Your task to perform on an android device: Search for usb-c to usb-a on newegg, select the first entry, add it to the cart, then select checkout. Image 0: 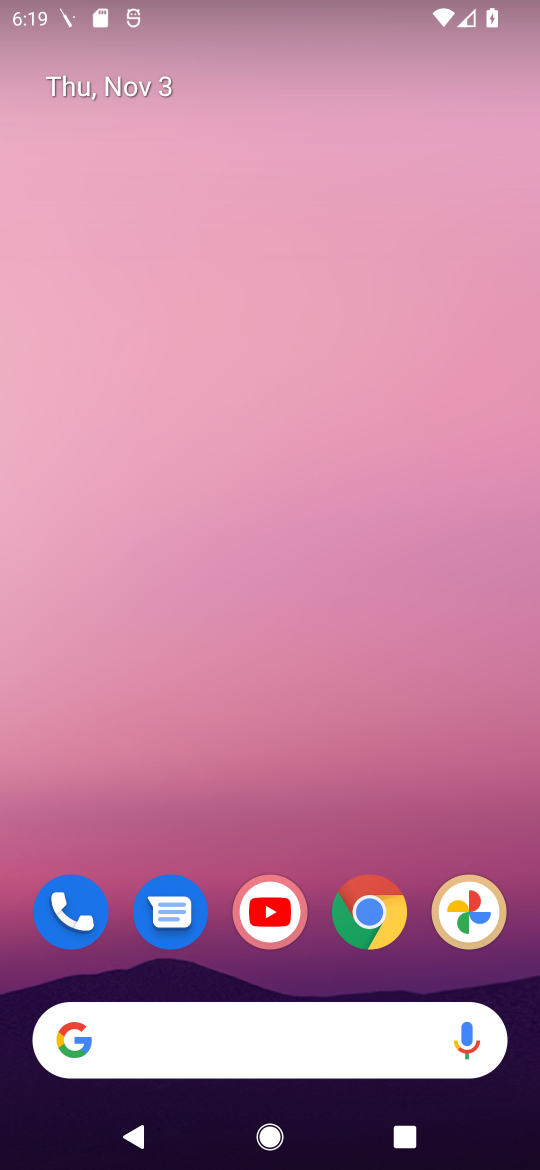
Step 0: click (362, 914)
Your task to perform on an android device: Search for usb-c to usb-a on newegg, select the first entry, add it to the cart, then select checkout. Image 1: 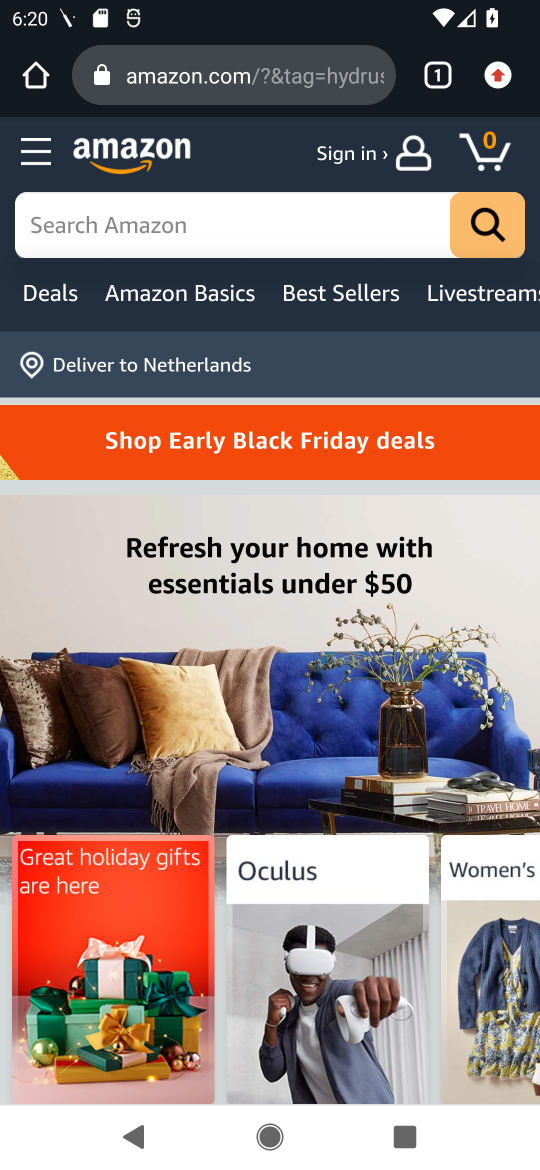
Step 1: type "n"
Your task to perform on an android device: Search for usb-c to usb-a on newegg, select the first entry, add it to the cart, then select checkout. Image 2: 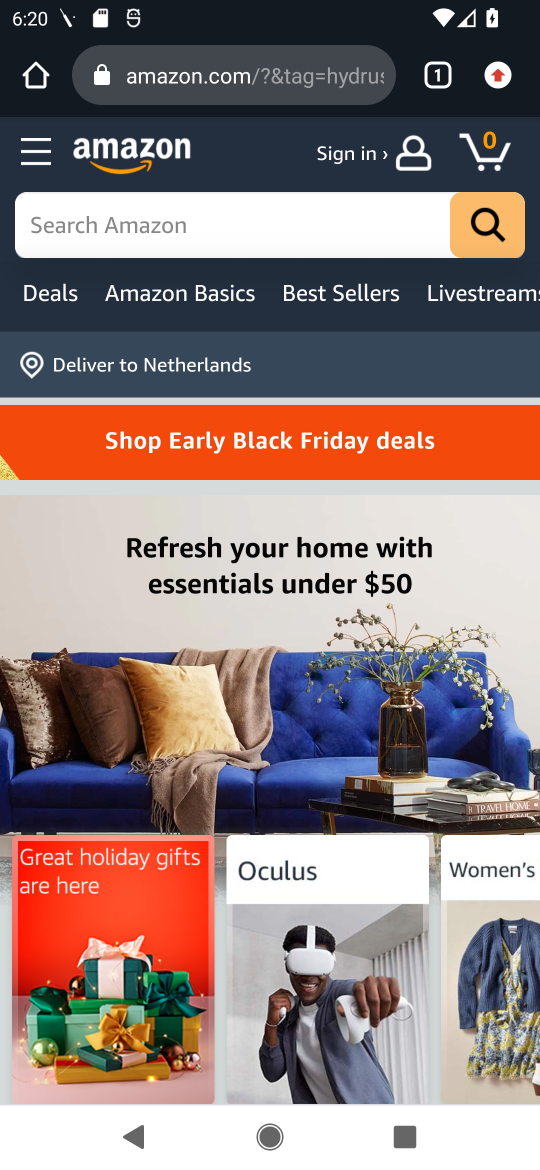
Step 2: click (248, 50)
Your task to perform on an android device: Search for usb-c to usb-a on newegg, select the first entry, add it to the cart, then select checkout. Image 3: 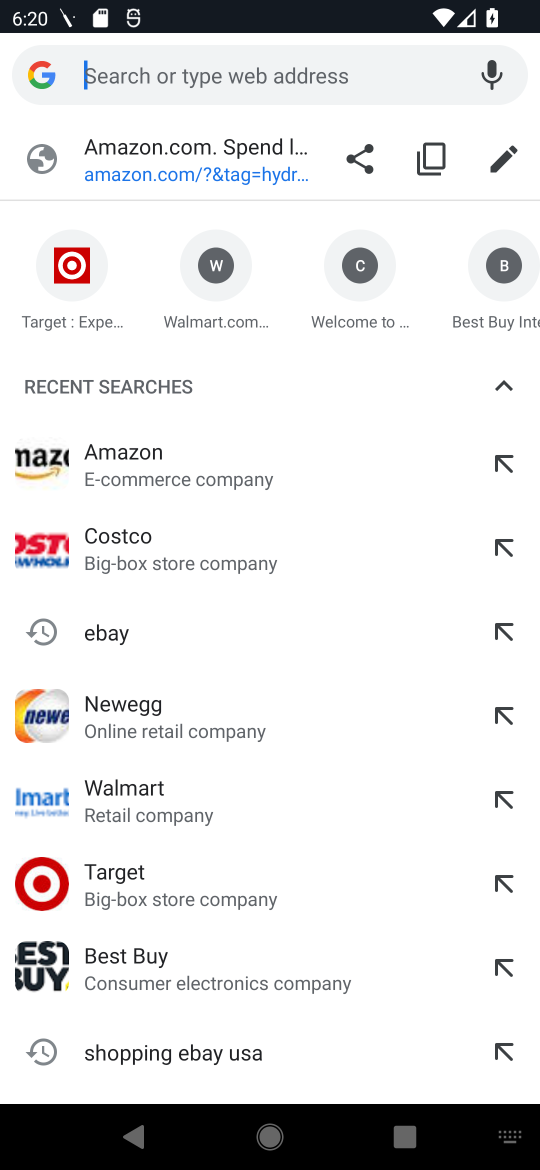
Step 3: click (132, 725)
Your task to perform on an android device: Search for usb-c to usb-a on newegg, select the first entry, add it to the cart, then select checkout. Image 4: 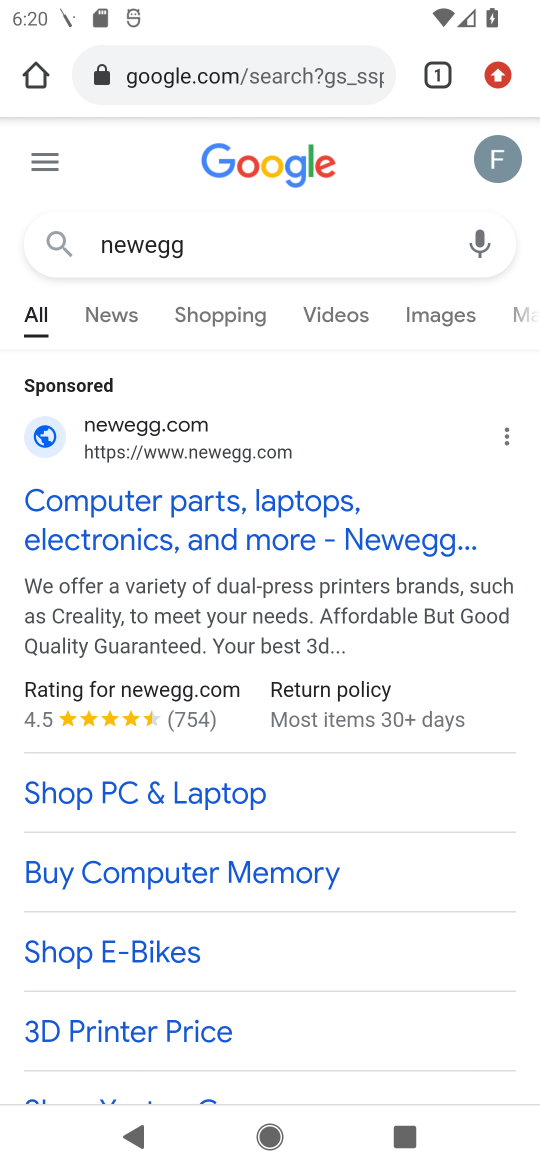
Step 4: click (124, 493)
Your task to perform on an android device: Search for usb-c to usb-a on newegg, select the first entry, add it to the cart, then select checkout. Image 5: 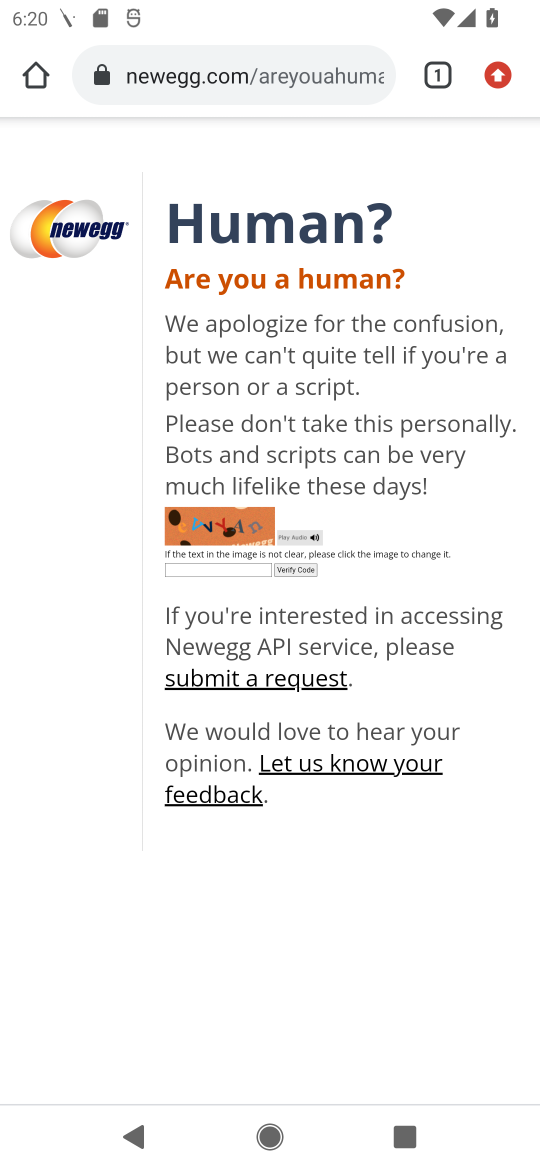
Step 5: click (190, 572)
Your task to perform on an android device: Search for usb-c to usb-a on newegg, select the first entry, add it to the cart, then select checkout. Image 6: 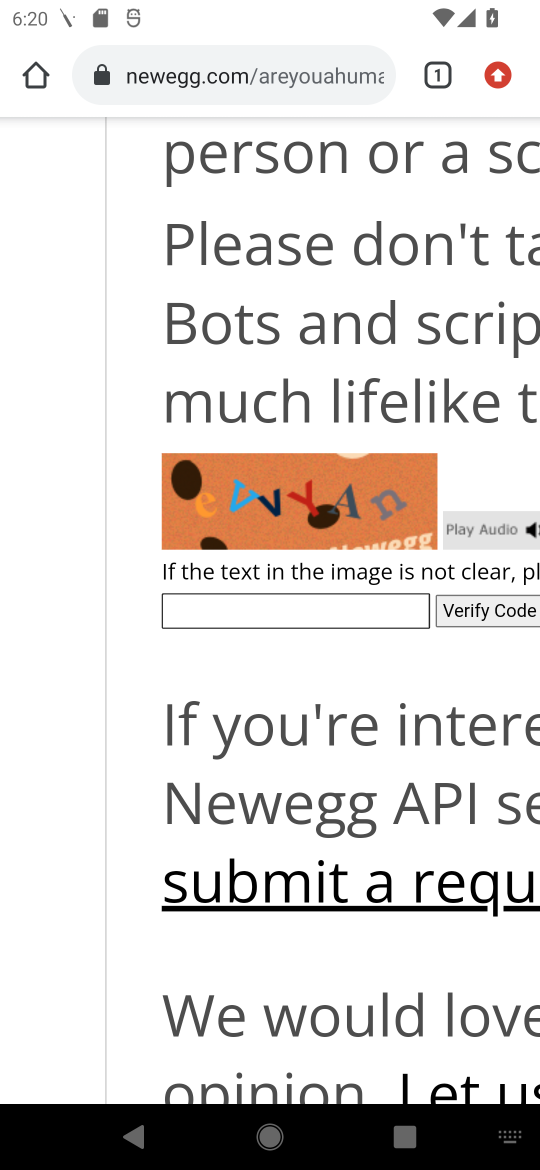
Step 6: type "eVVYAn"
Your task to perform on an android device: Search for usb-c to usb-a on newegg, select the first entry, add it to the cart, then select checkout. Image 7: 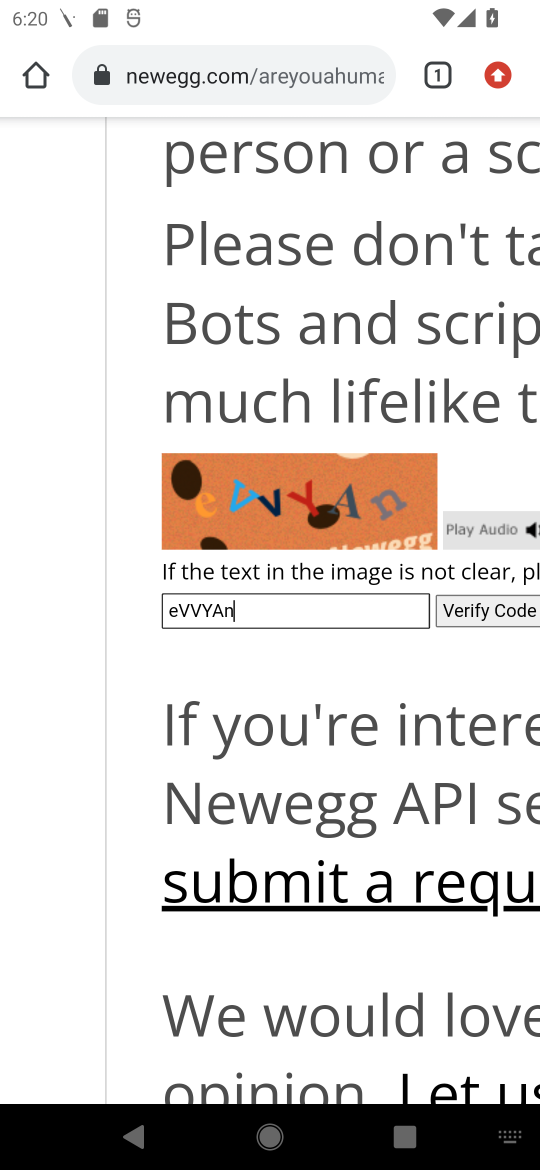
Step 7: click (472, 617)
Your task to perform on an android device: Search for usb-c to usb-a on newegg, select the first entry, add it to the cart, then select checkout. Image 8: 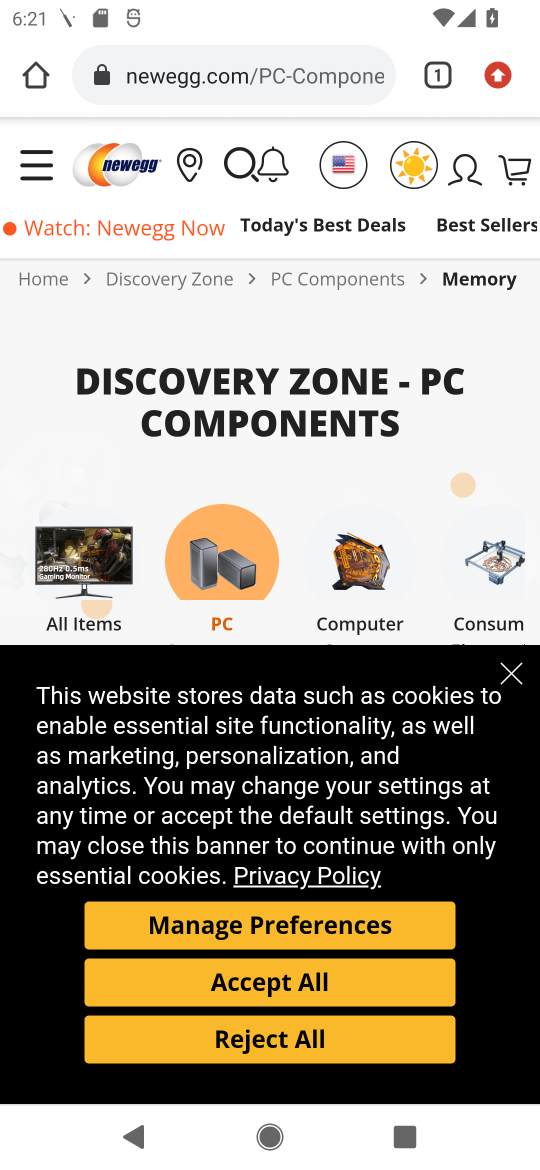
Step 8: click (290, 988)
Your task to perform on an android device: Search for usb-c to usb-a on newegg, select the first entry, add it to the cart, then select checkout. Image 9: 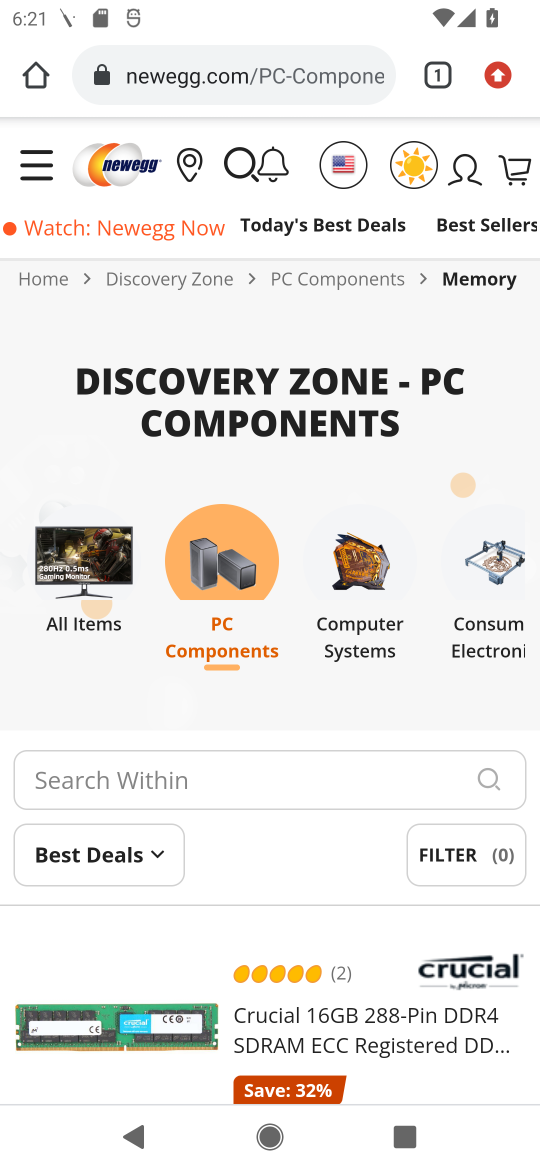
Step 9: click (233, 163)
Your task to perform on an android device: Search for usb-c to usb-a on newegg, select the first entry, add it to the cart, then select checkout. Image 10: 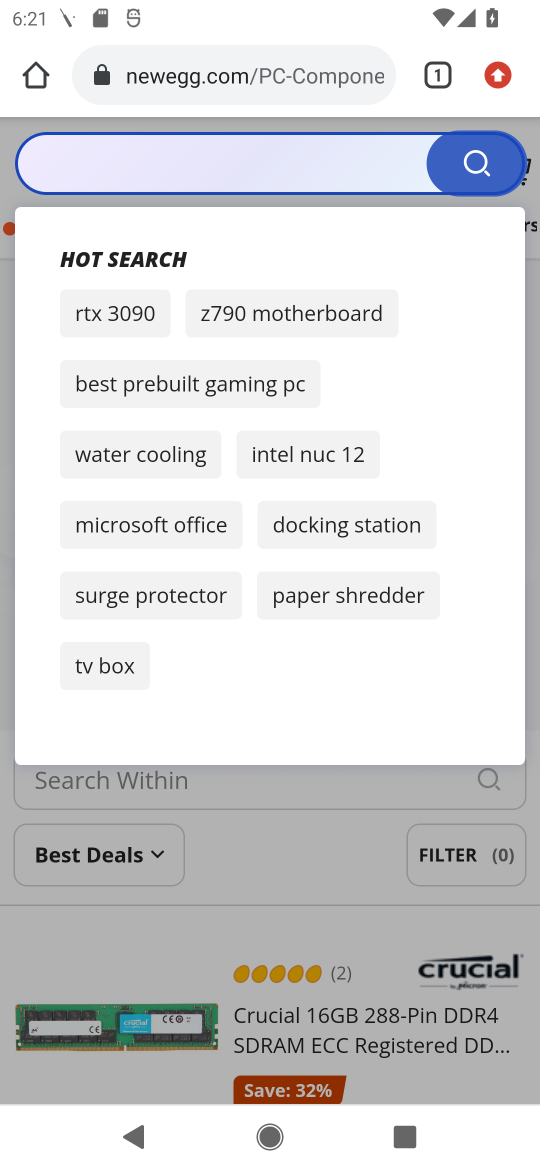
Step 10: click (207, 156)
Your task to perform on an android device: Search for usb-c to usb-a on newegg, select the first entry, add it to the cart, then select checkout. Image 11: 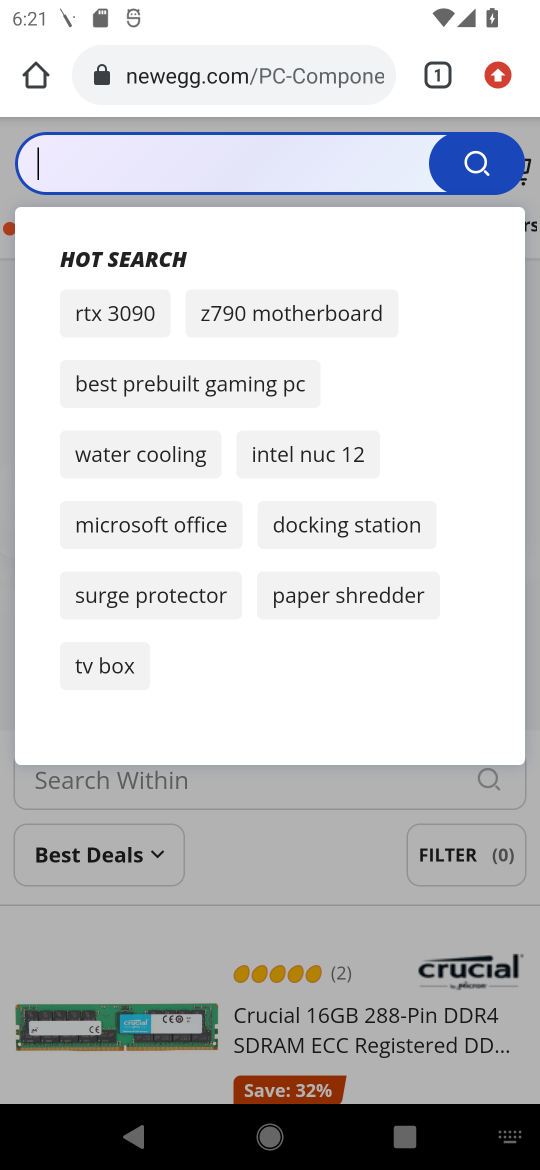
Step 11: type "usb-c to usb-a"
Your task to perform on an android device: Search for usb-c to usb-a on newegg, select the first entry, add it to the cart, then select checkout. Image 12: 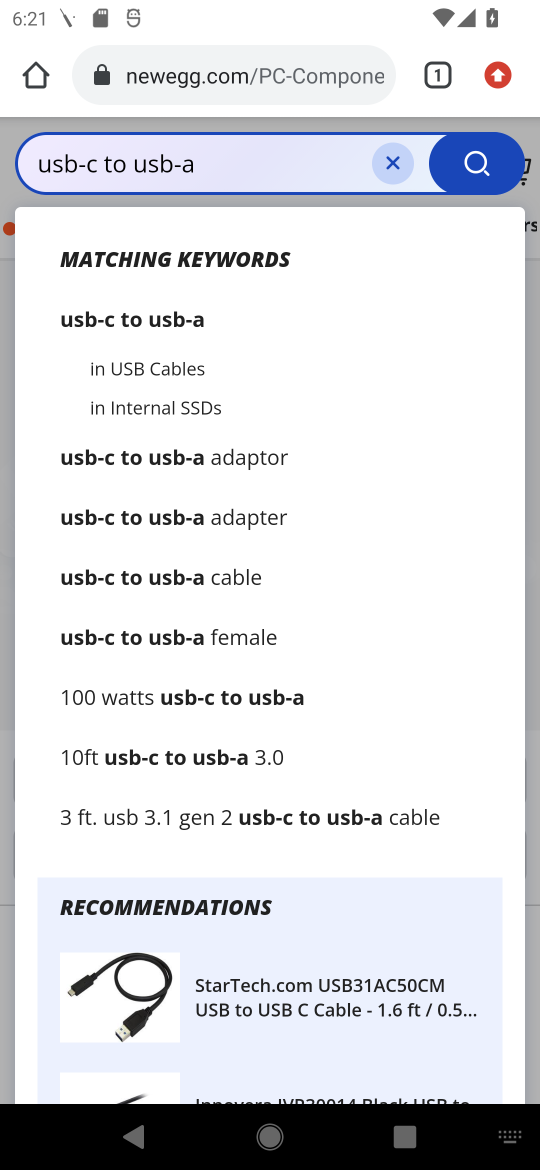
Step 12: click (86, 314)
Your task to perform on an android device: Search for usb-c to usb-a on newegg, select the first entry, add it to the cart, then select checkout. Image 13: 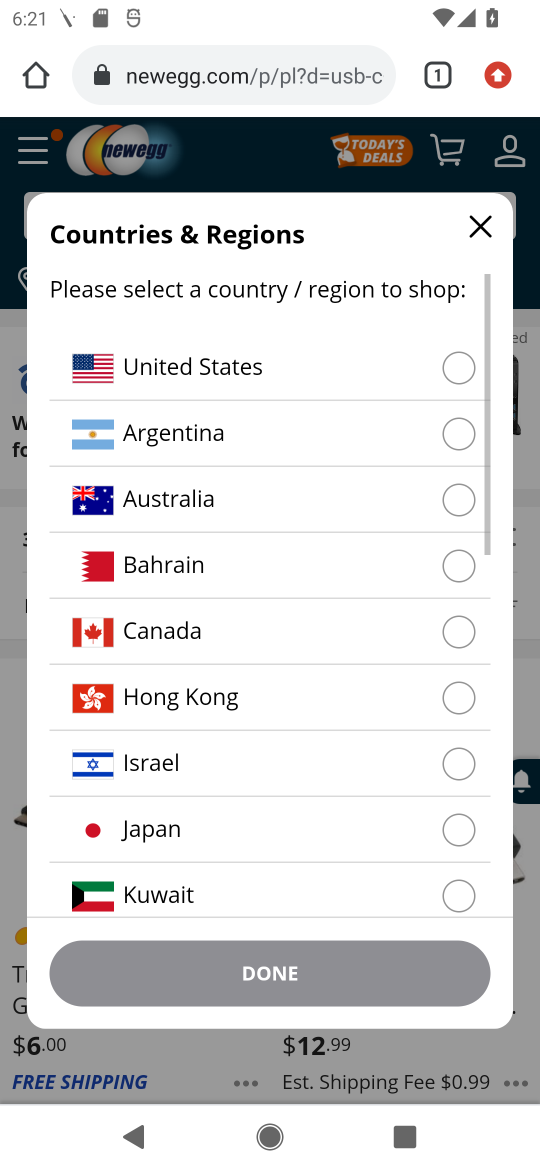
Step 13: click (459, 363)
Your task to perform on an android device: Search for usb-c to usb-a on newegg, select the first entry, add it to the cart, then select checkout. Image 14: 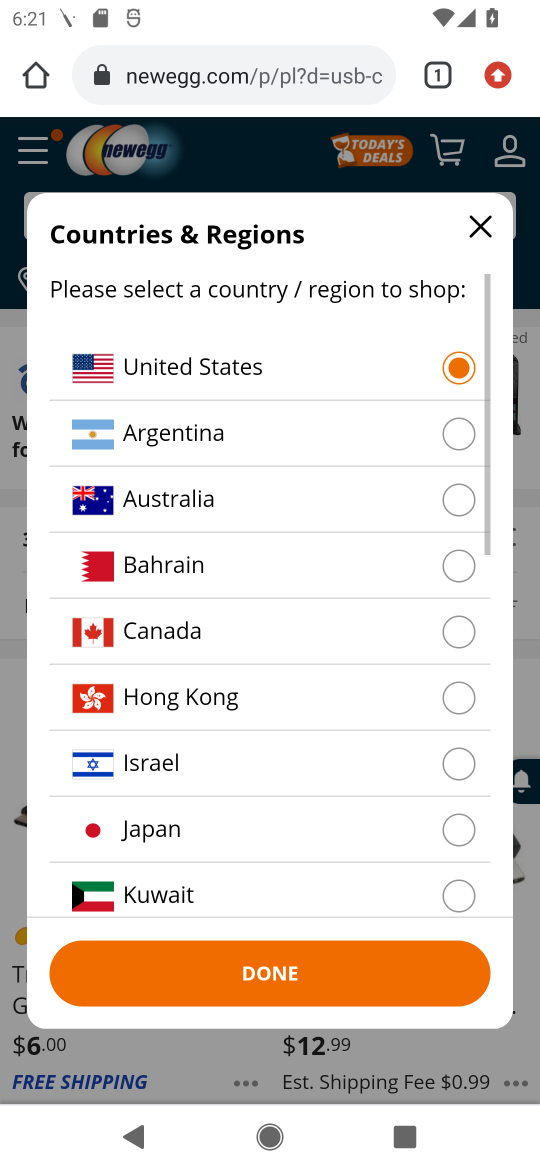
Step 14: click (271, 974)
Your task to perform on an android device: Search for usb-c to usb-a on newegg, select the first entry, add it to the cart, then select checkout. Image 15: 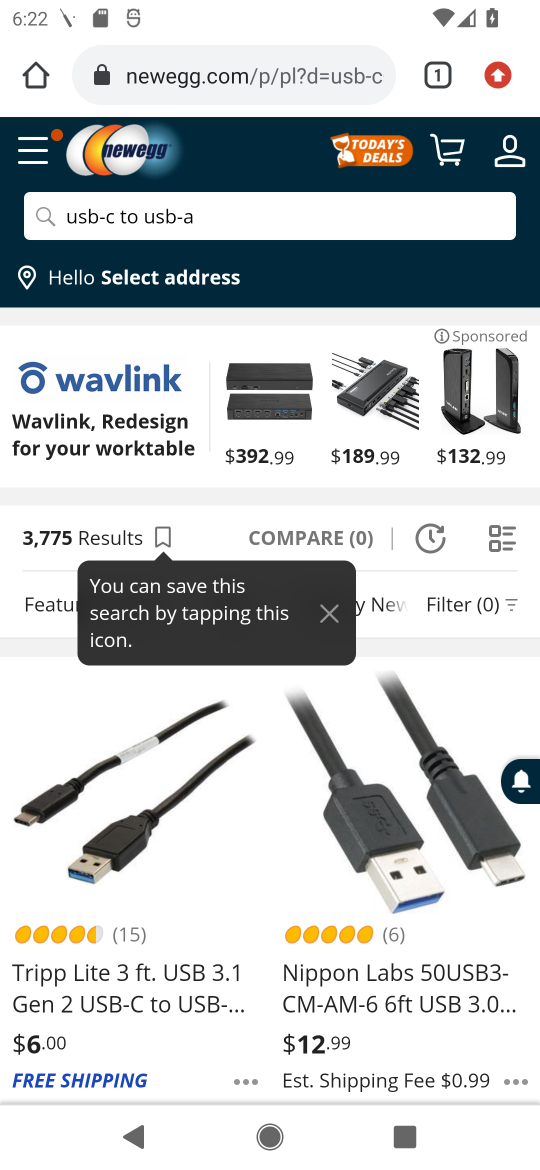
Step 15: drag from (261, 938) to (279, 480)
Your task to perform on an android device: Search for usb-c to usb-a on newegg, select the first entry, add it to the cart, then select checkout. Image 16: 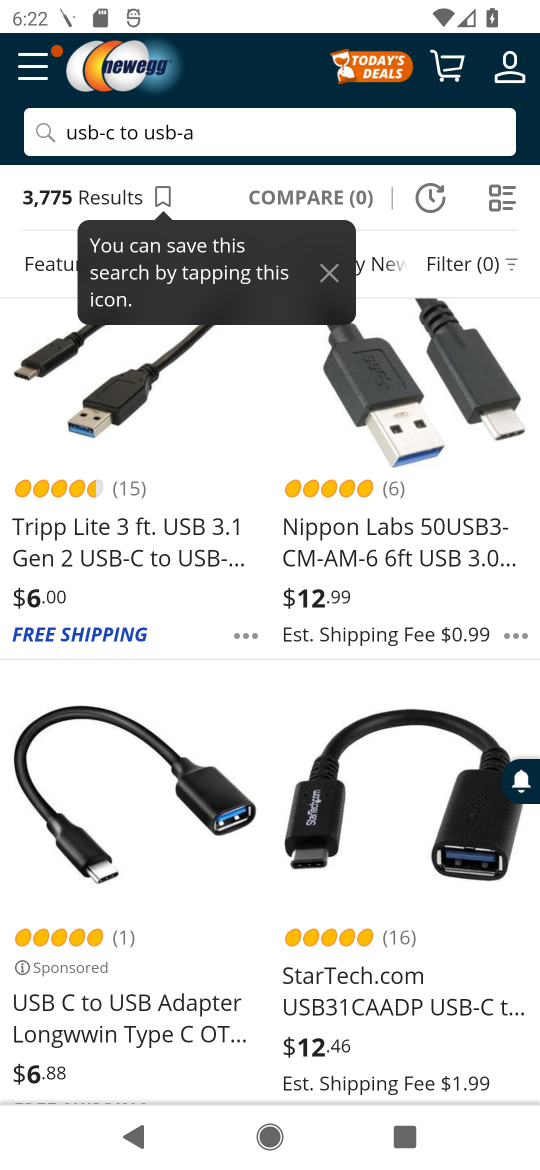
Step 16: drag from (217, 409) to (236, 316)
Your task to perform on an android device: Search for usb-c to usb-a on newegg, select the first entry, add it to the cart, then select checkout. Image 17: 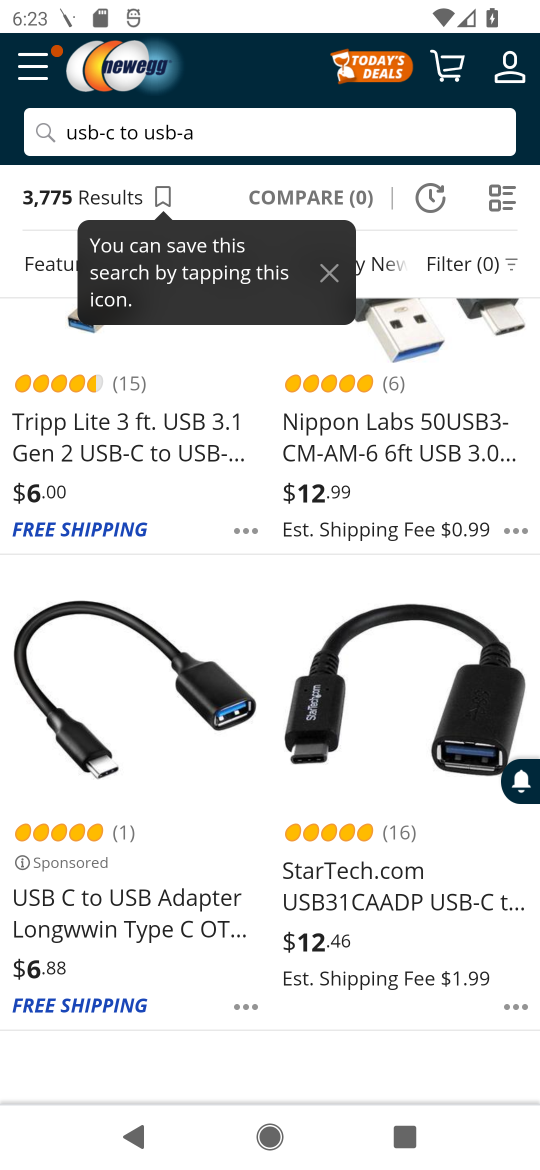
Step 17: drag from (213, 994) to (237, 758)
Your task to perform on an android device: Search for usb-c to usb-a on newegg, select the first entry, add it to the cart, then select checkout. Image 18: 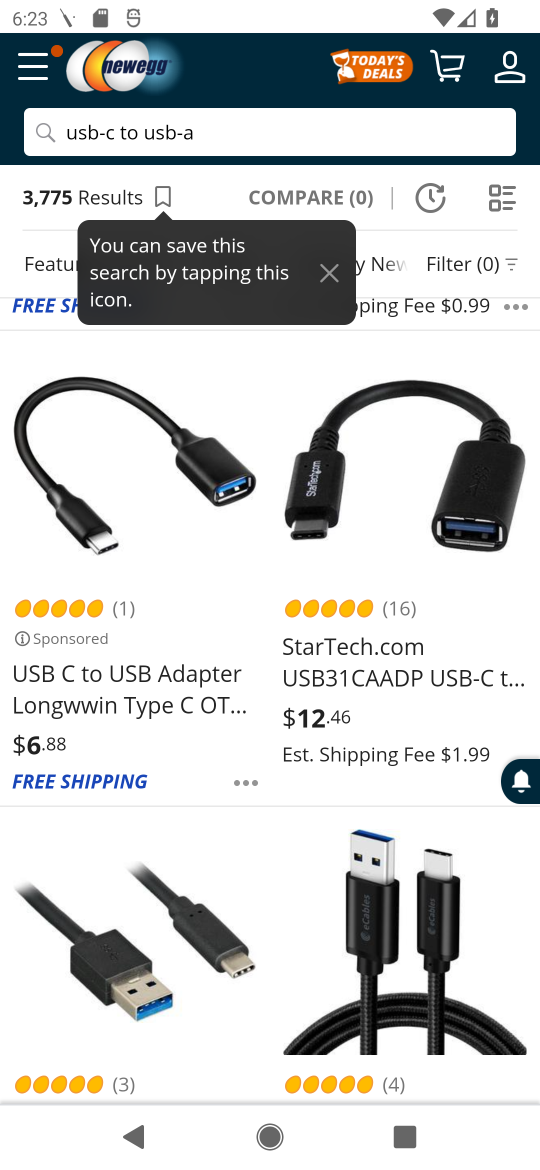
Step 18: drag from (187, 969) to (241, 427)
Your task to perform on an android device: Search for usb-c to usb-a on newegg, select the first entry, add it to the cart, then select checkout. Image 19: 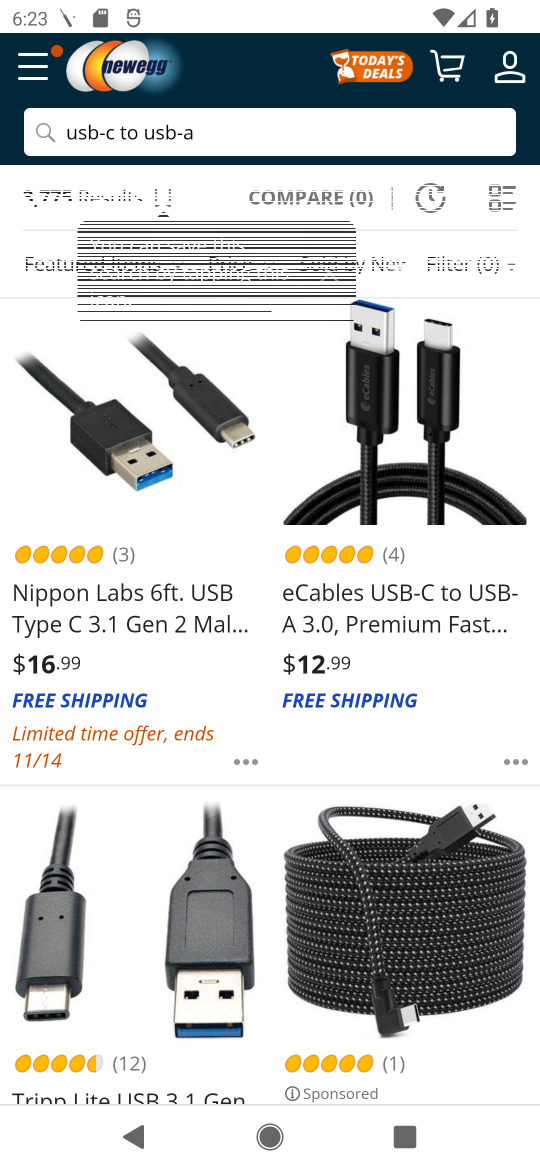
Step 19: click (379, 557)
Your task to perform on an android device: Search for usb-c to usb-a on newegg, select the first entry, add it to the cart, then select checkout. Image 20: 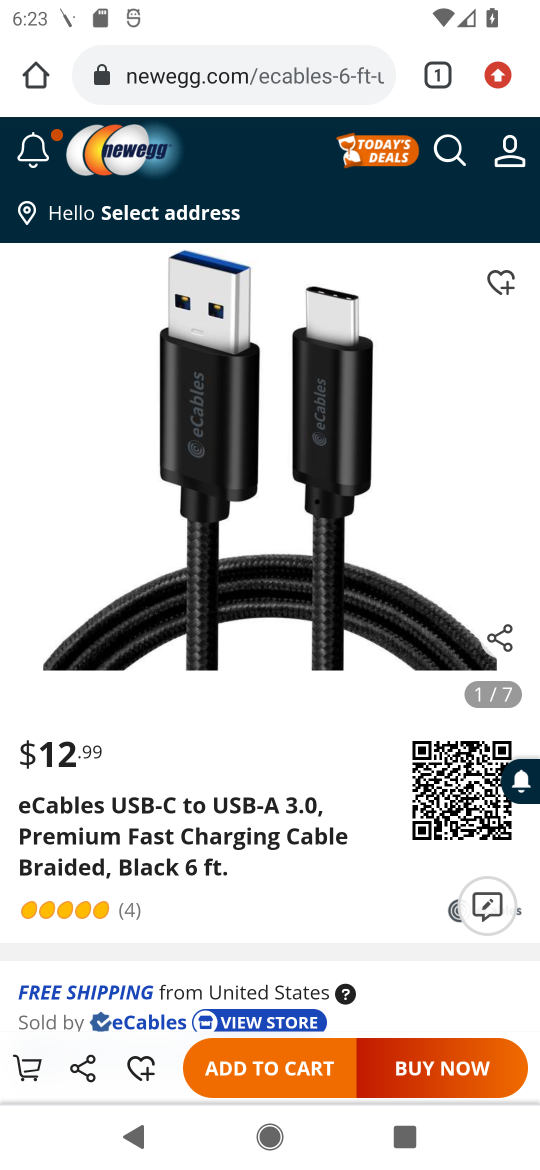
Step 20: click (256, 1065)
Your task to perform on an android device: Search for usb-c to usb-a on newegg, select the first entry, add it to the cart, then select checkout. Image 21: 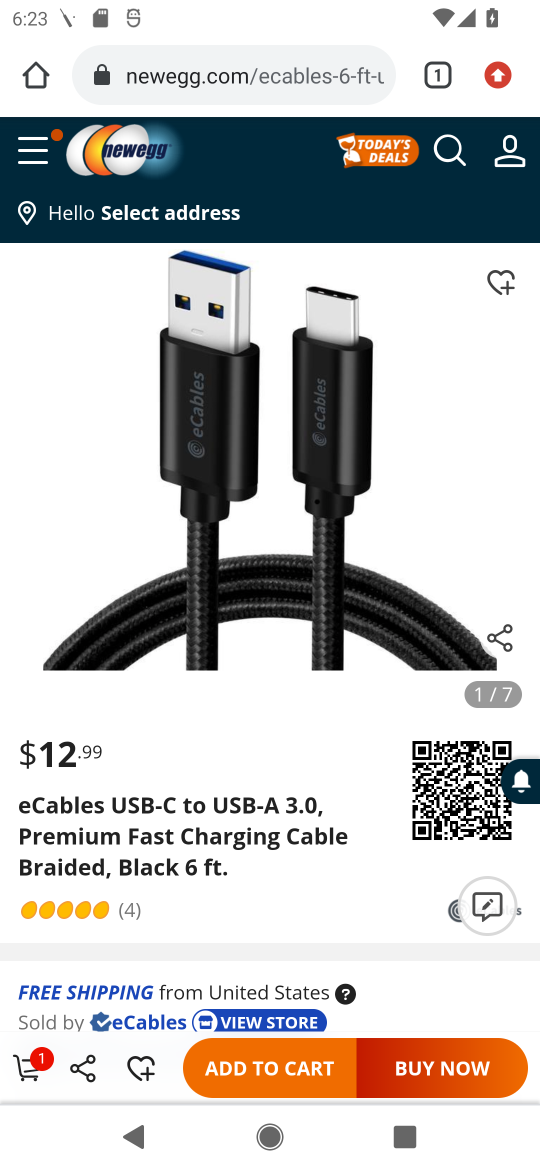
Step 21: click (34, 1063)
Your task to perform on an android device: Search for usb-c to usb-a on newegg, select the first entry, add it to the cart, then select checkout. Image 22: 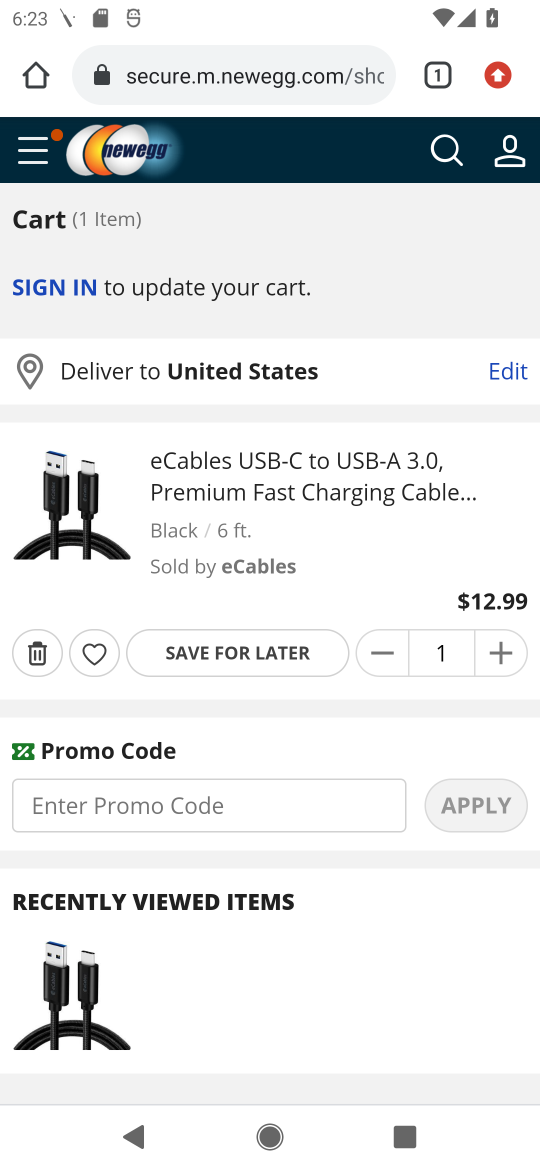
Step 22: click (306, 944)
Your task to perform on an android device: Search for usb-c to usb-a on newegg, select the first entry, add it to the cart, then select checkout. Image 23: 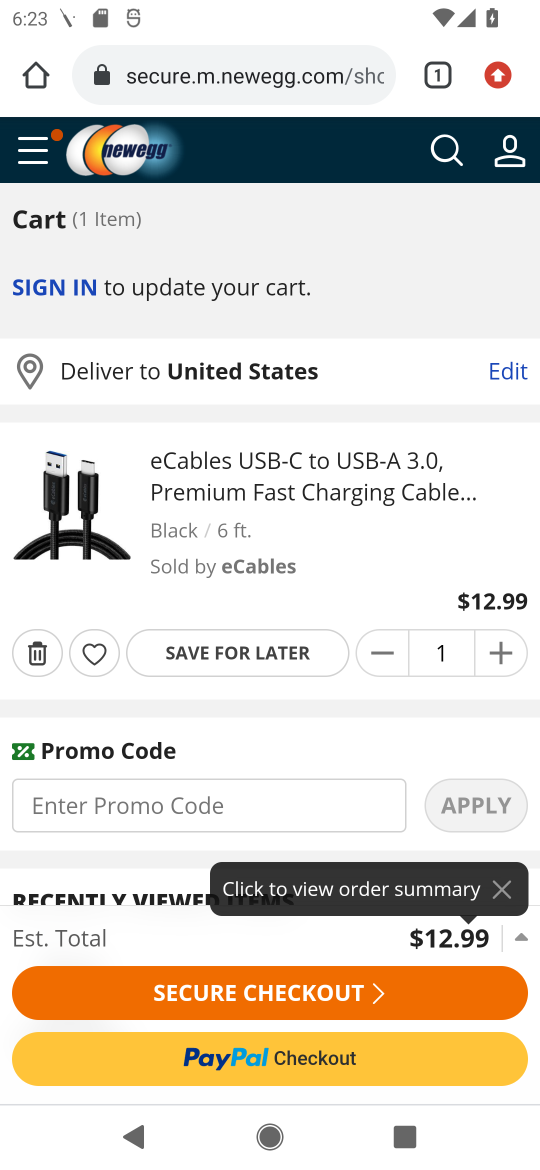
Step 23: click (284, 978)
Your task to perform on an android device: Search for usb-c to usb-a on newegg, select the first entry, add it to the cart, then select checkout. Image 24: 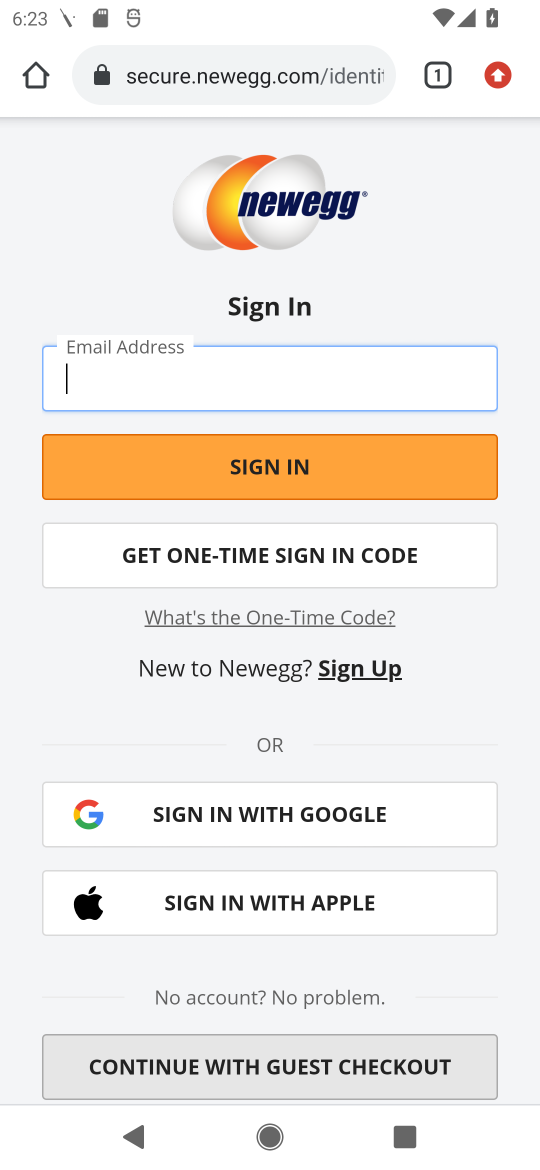
Step 24: task complete